Your task to perform on an android device: Look up the best rated headphones on Aliexpress Image 0: 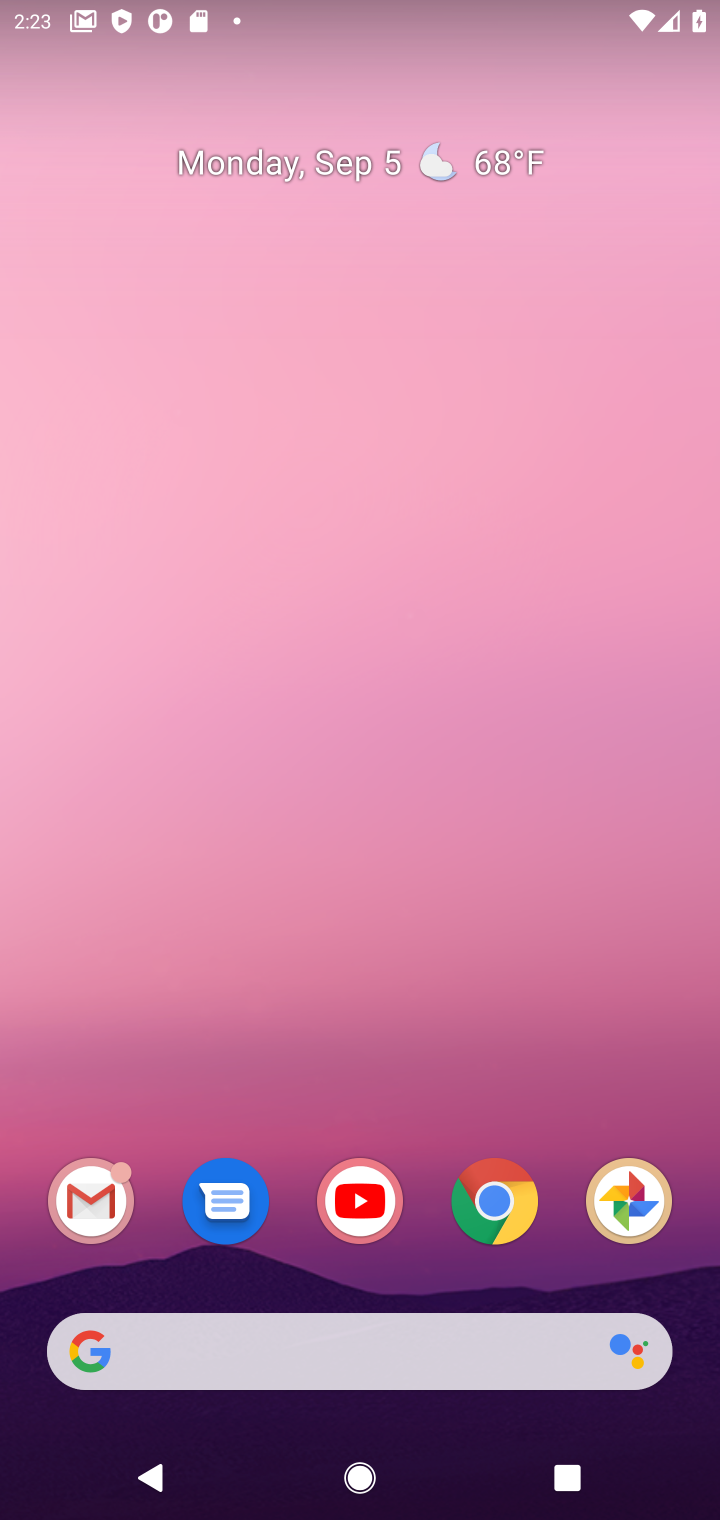
Step 0: click (510, 1197)
Your task to perform on an android device: Look up the best rated headphones on Aliexpress Image 1: 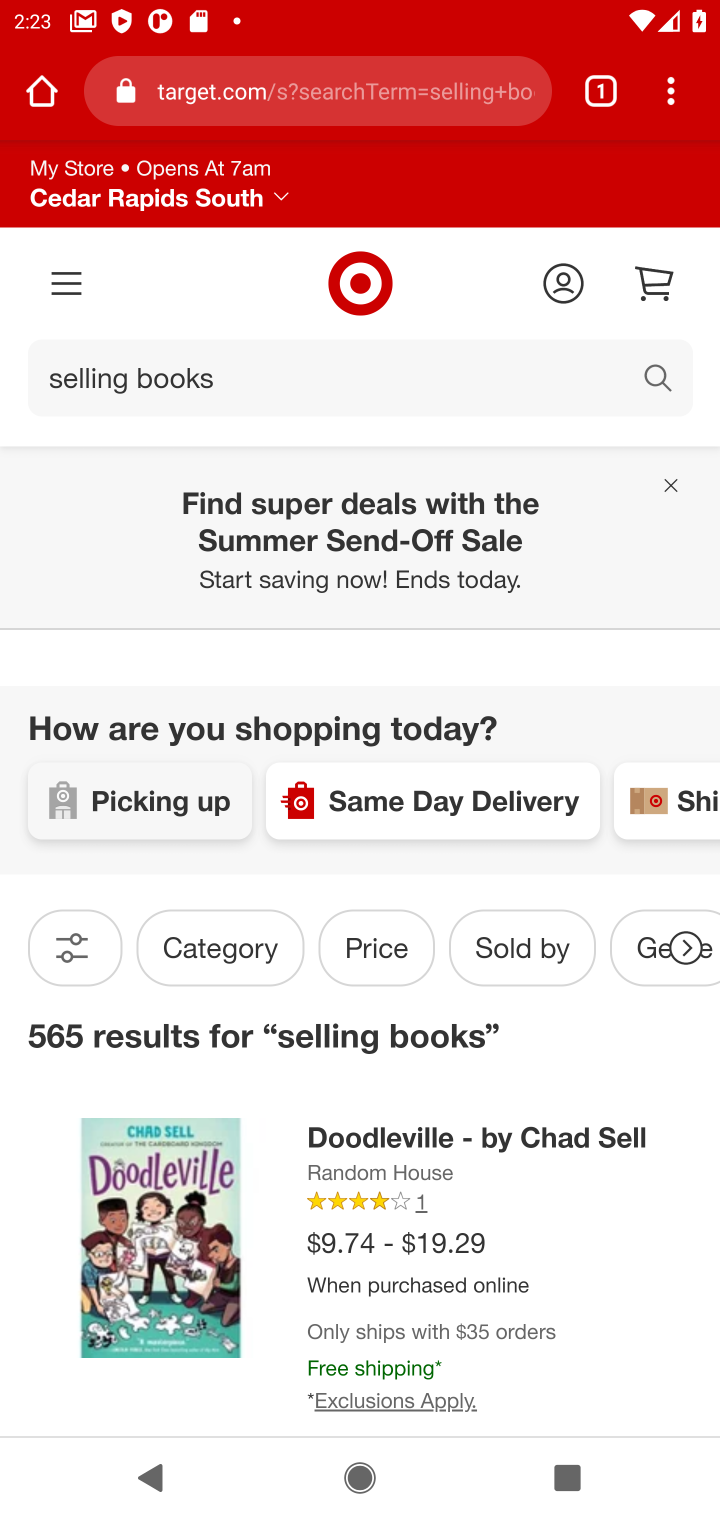
Step 1: click (426, 80)
Your task to perform on an android device: Look up the best rated headphones on Aliexpress Image 2: 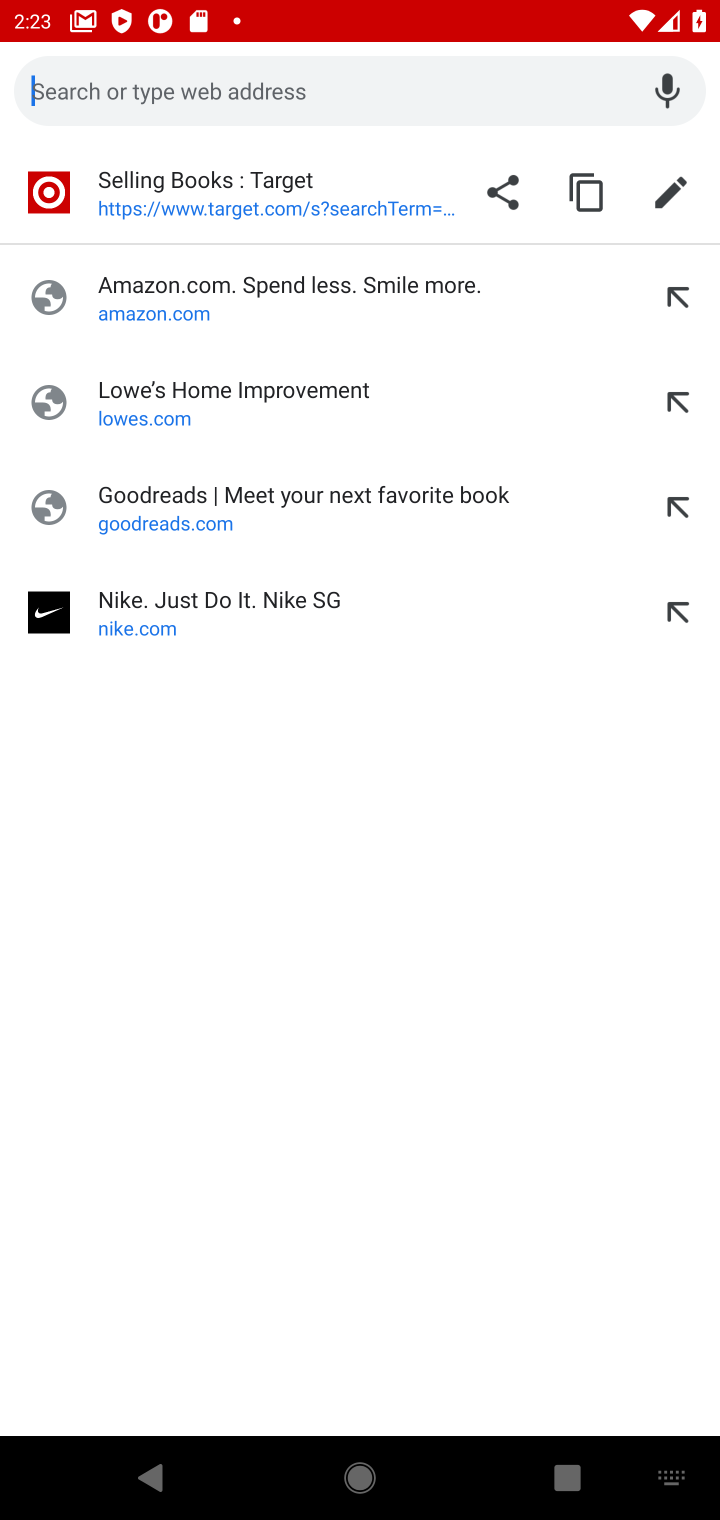
Step 2: type " Aliexpress"
Your task to perform on an android device: Look up the best rated headphones on Aliexpress Image 3: 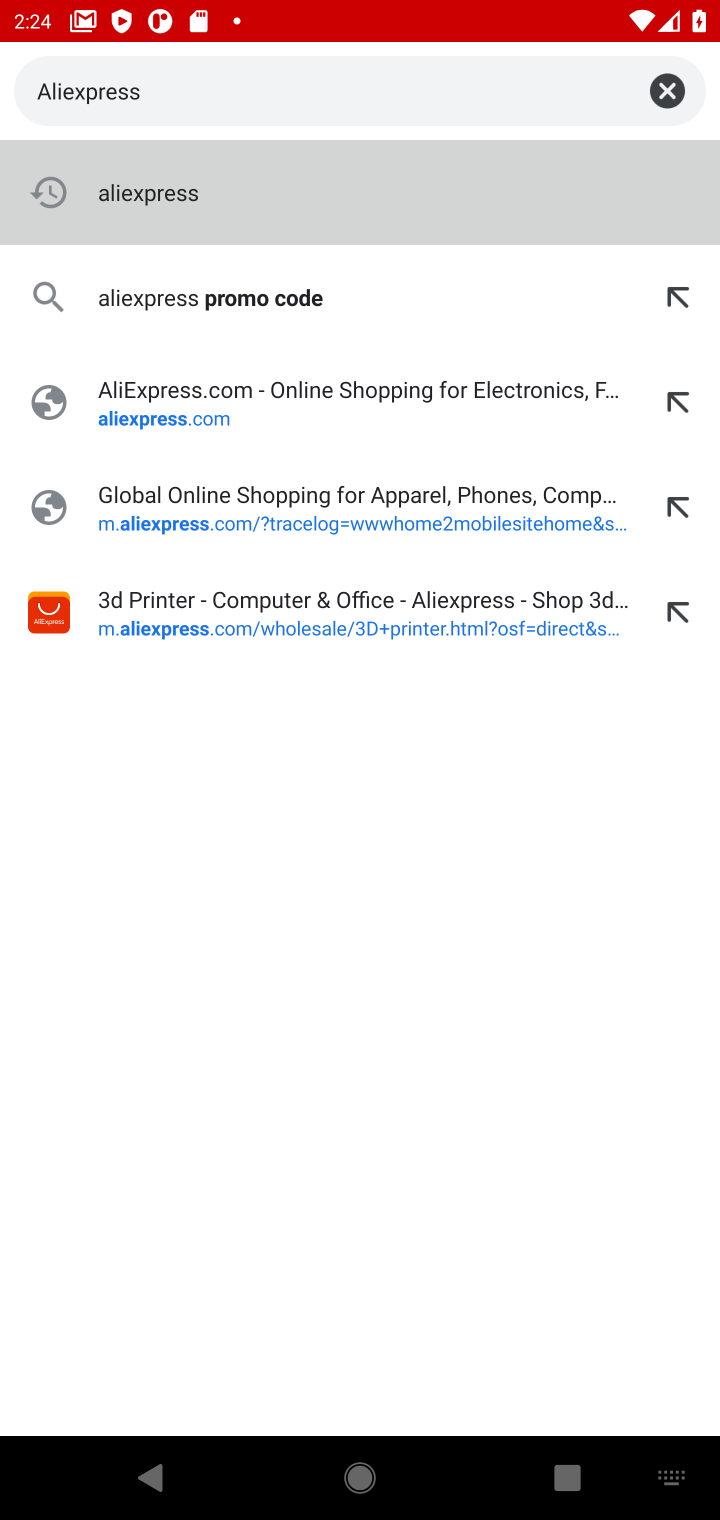
Step 3: press enter
Your task to perform on an android device: Look up the best rated headphones on Aliexpress Image 4: 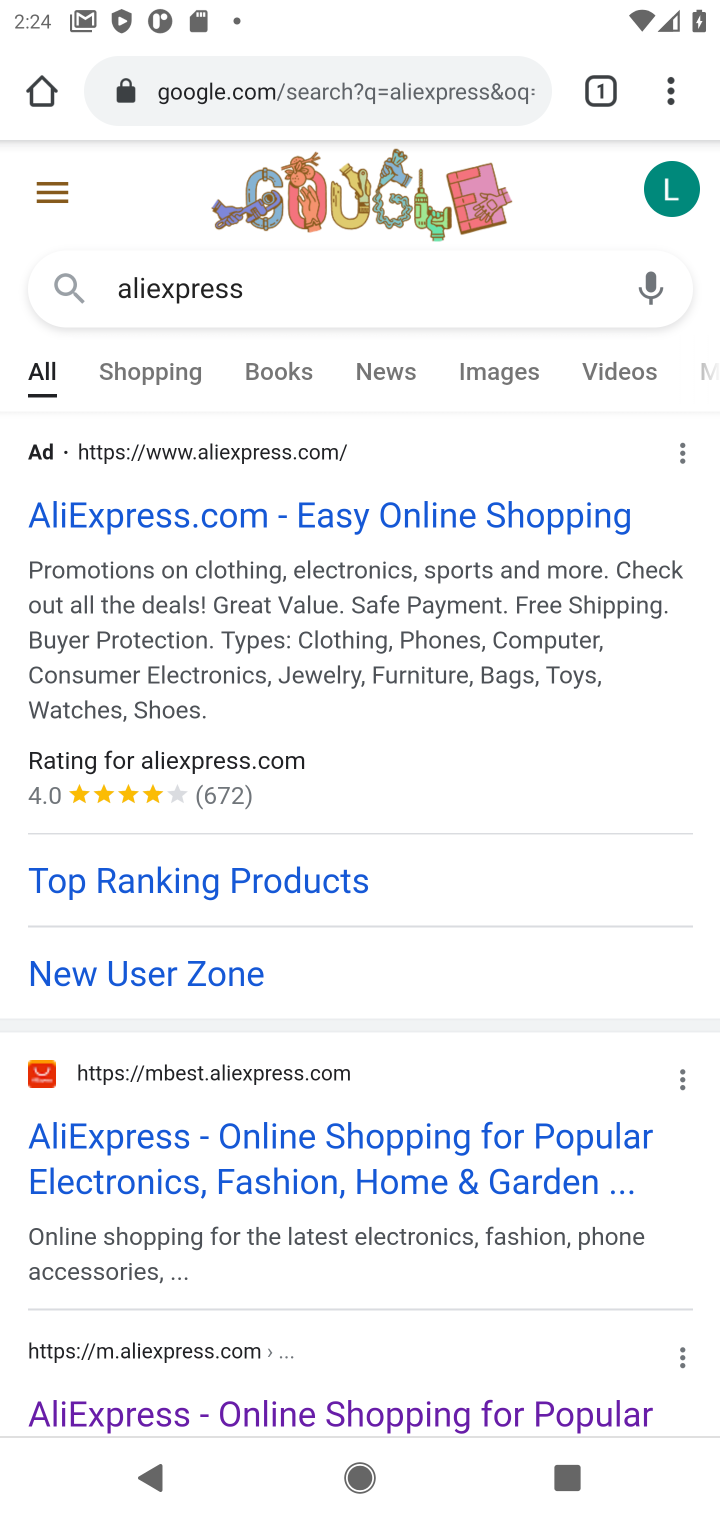
Step 4: drag from (269, 984) to (567, 444)
Your task to perform on an android device: Look up the best rated headphones on Aliexpress Image 5: 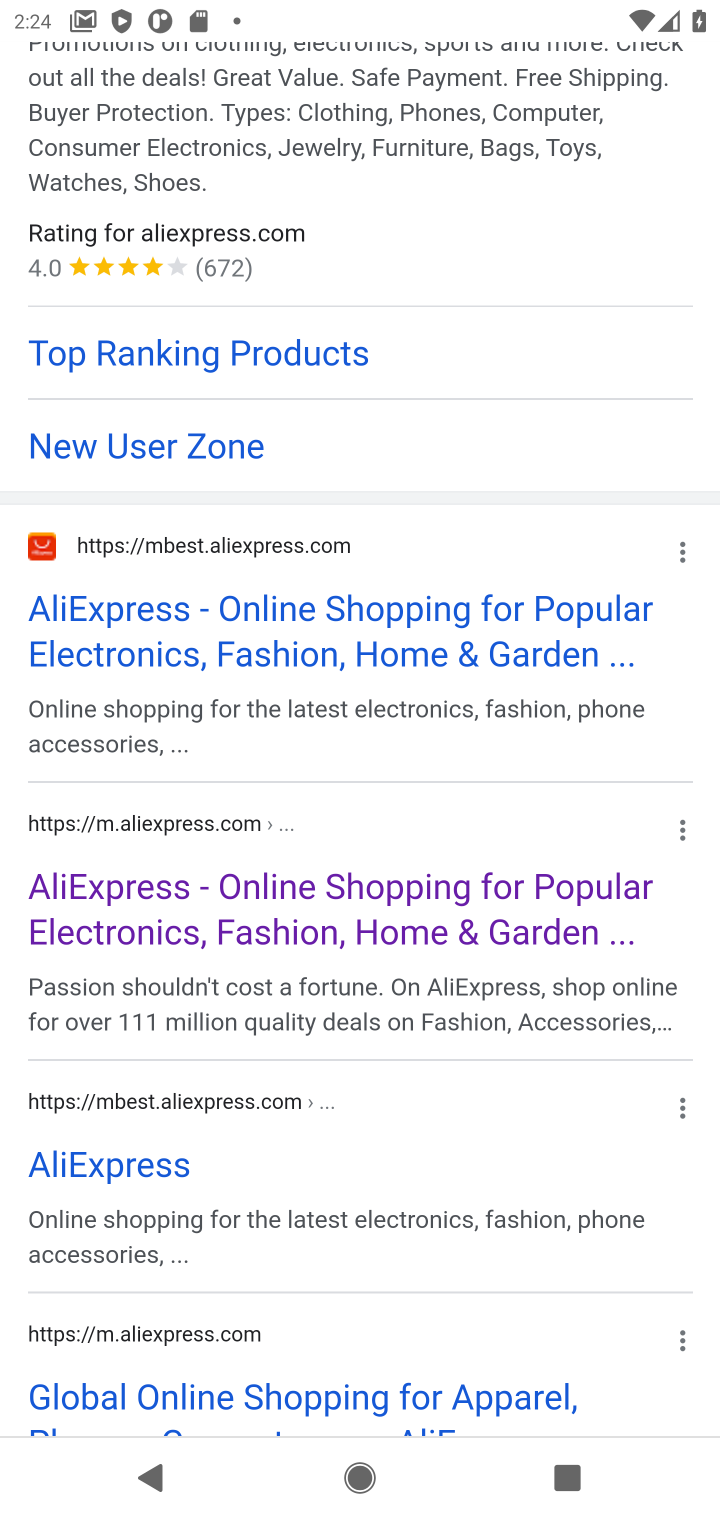
Step 5: click (82, 1182)
Your task to perform on an android device: Look up the best rated headphones on Aliexpress Image 6: 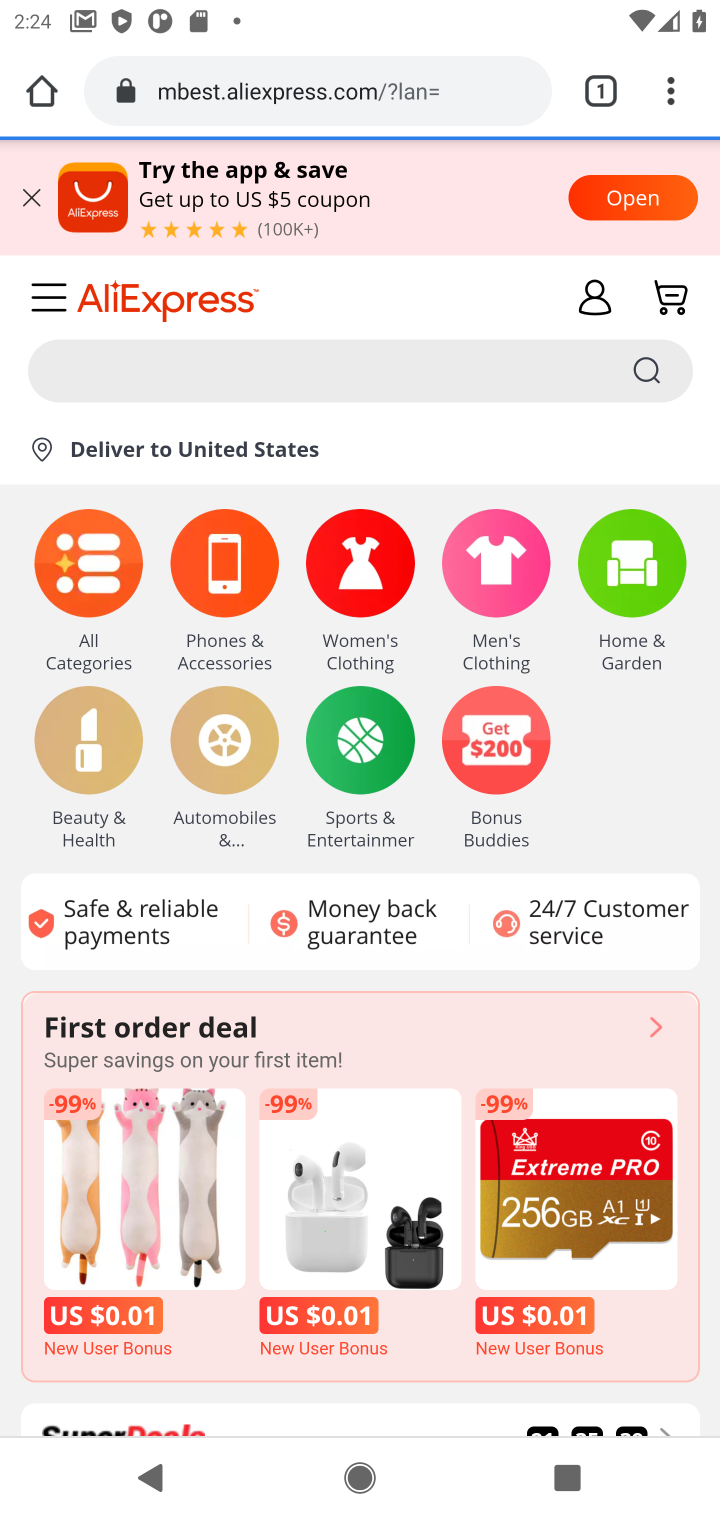
Step 6: click (195, 370)
Your task to perform on an android device: Look up the best rated headphones on Aliexpress Image 7: 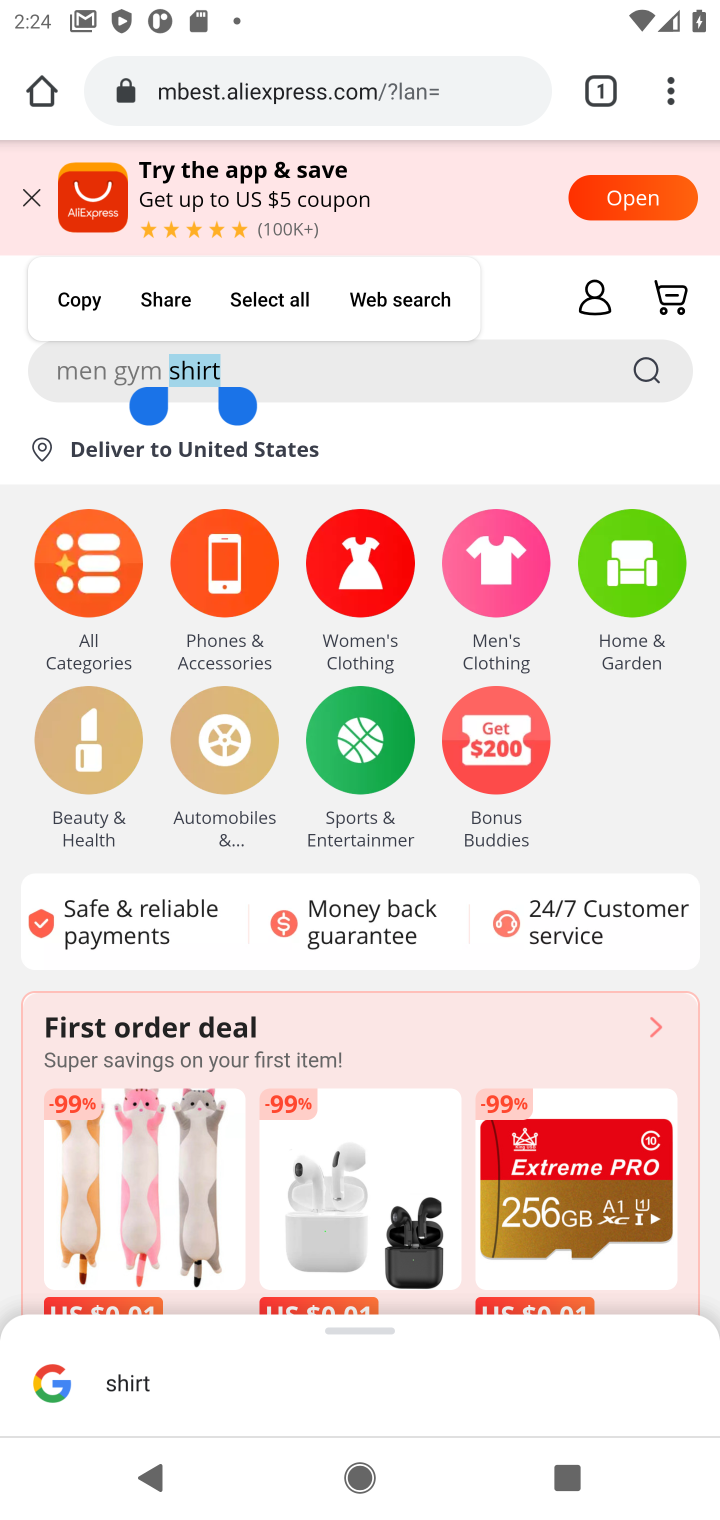
Step 7: click (90, 371)
Your task to perform on an android device: Look up the best rated headphones on Aliexpress Image 8: 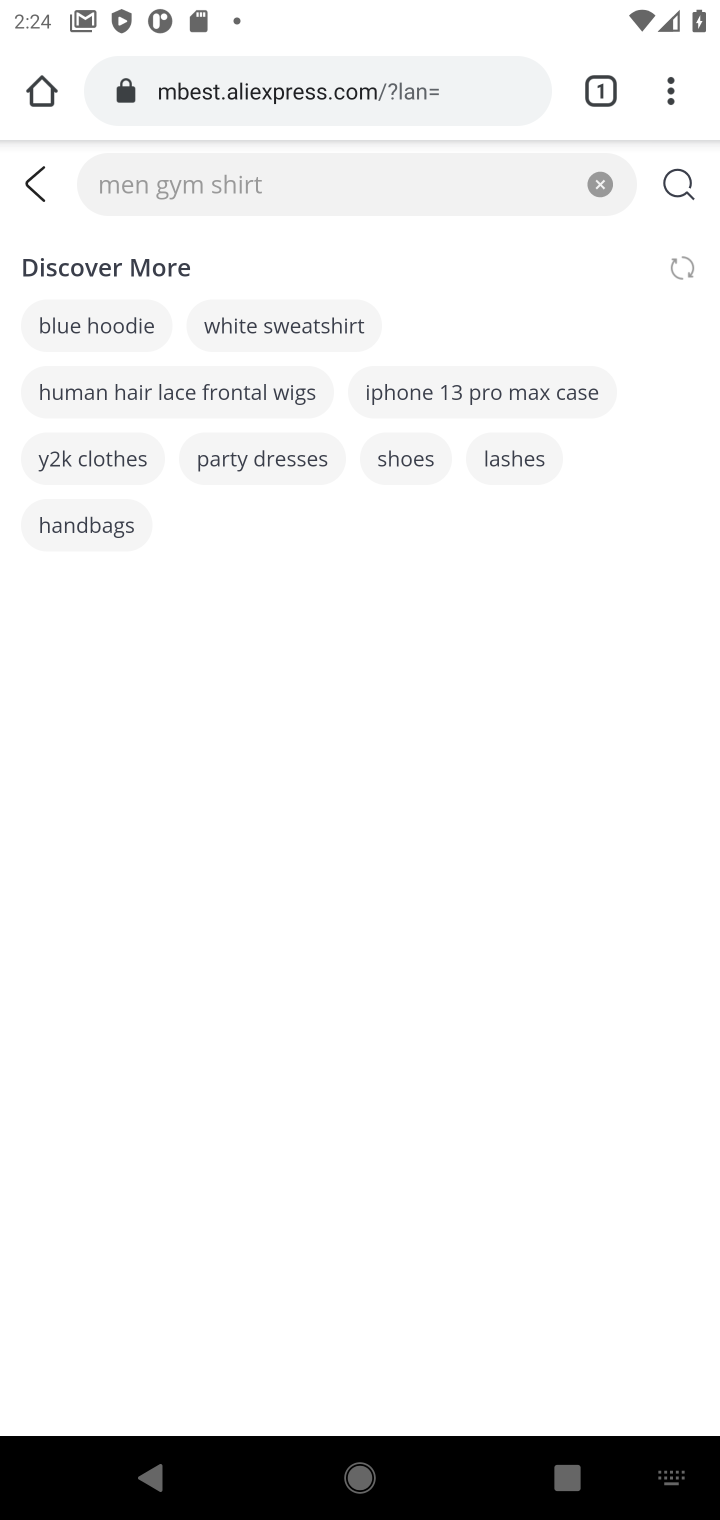
Step 8: type "headphones"
Your task to perform on an android device: Look up the best rated headphones on Aliexpress Image 9: 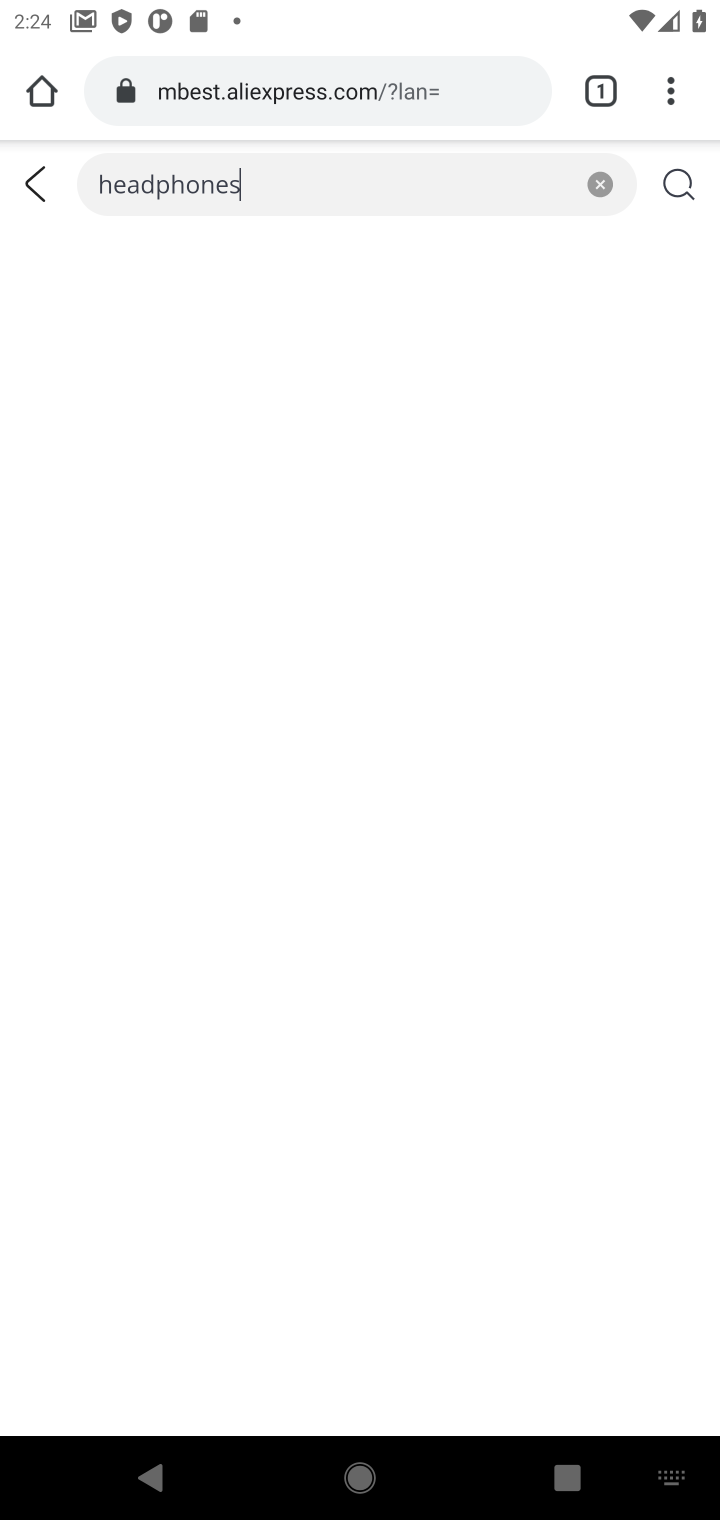
Step 9: press enter
Your task to perform on an android device: Look up the best rated headphones on Aliexpress Image 10: 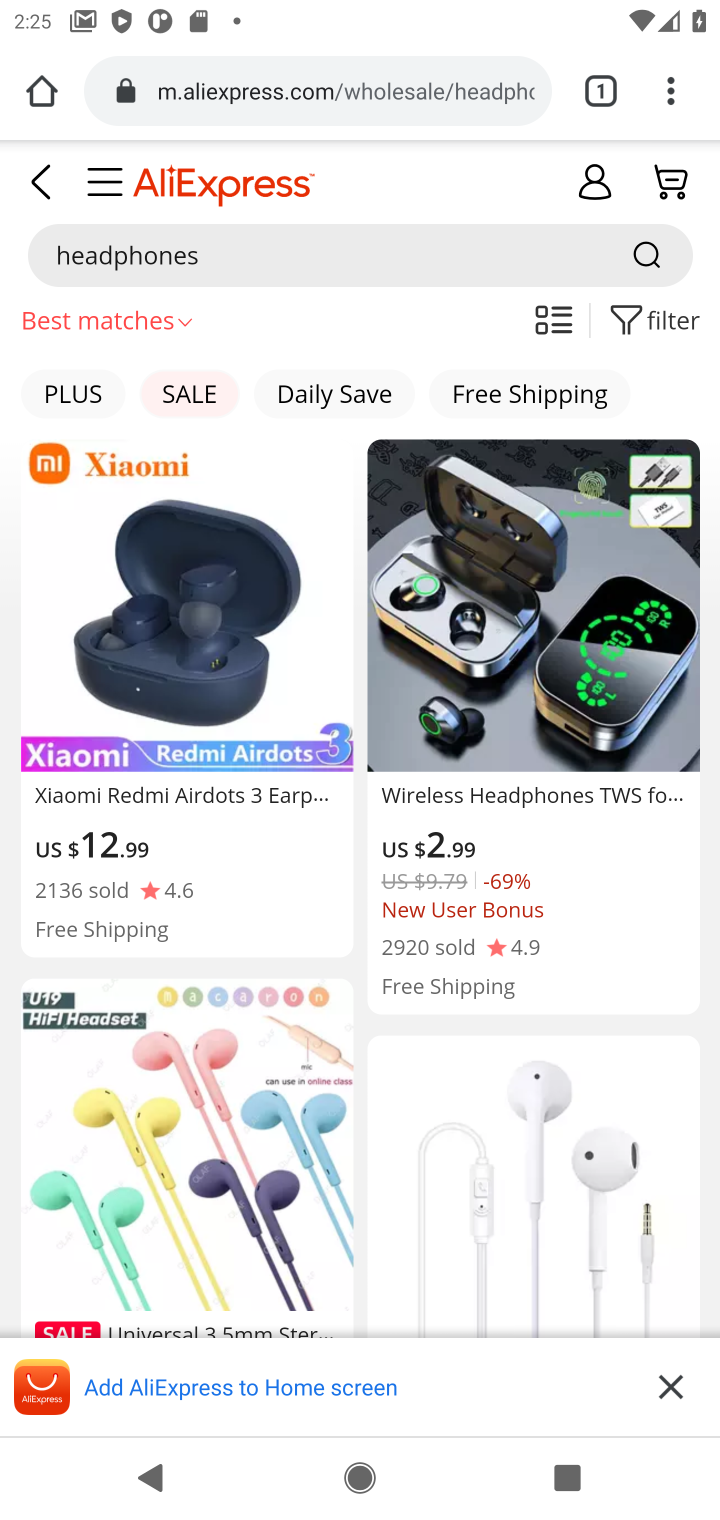
Step 10: task complete